Your task to perform on an android device: add a contact in the contacts app Image 0: 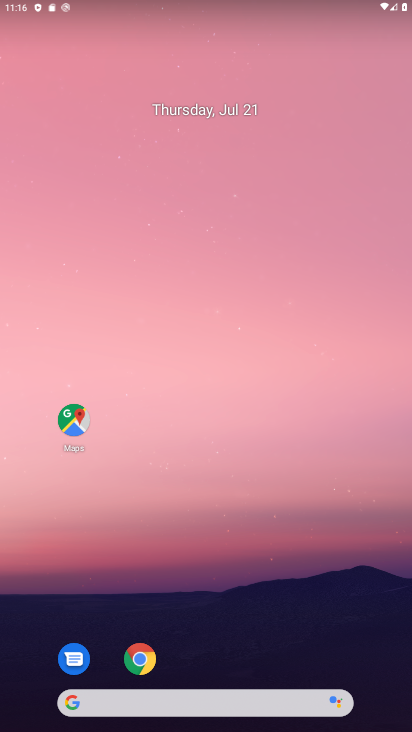
Step 0: drag from (260, 647) to (225, 246)
Your task to perform on an android device: add a contact in the contacts app Image 1: 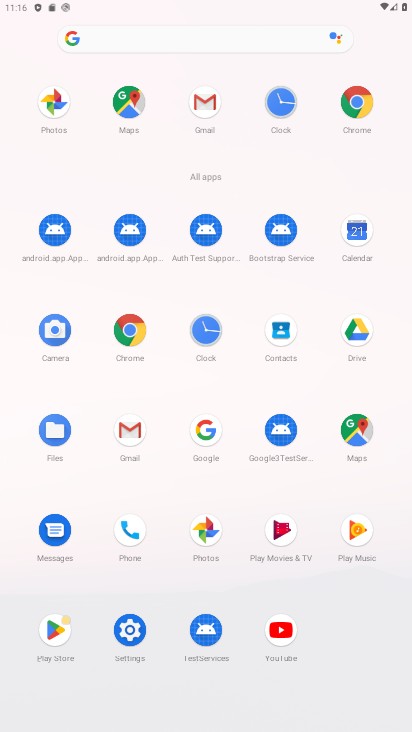
Step 1: click (273, 338)
Your task to perform on an android device: add a contact in the contacts app Image 2: 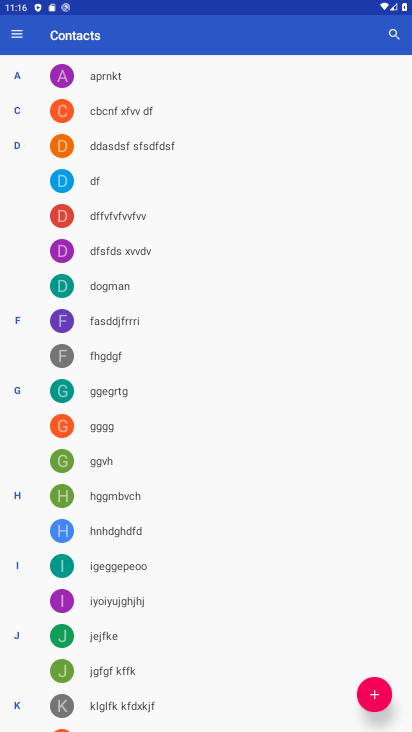
Step 2: click (384, 682)
Your task to perform on an android device: add a contact in the contacts app Image 3: 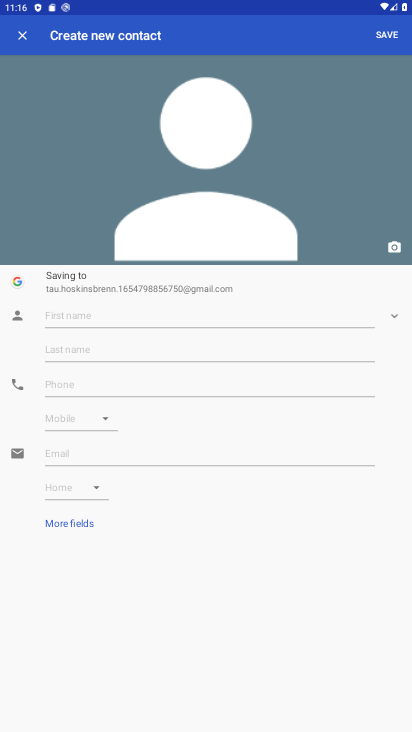
Step 3: click (159, 310)
Your task to perform on an android device: add a contact in the contacts app Image 4: 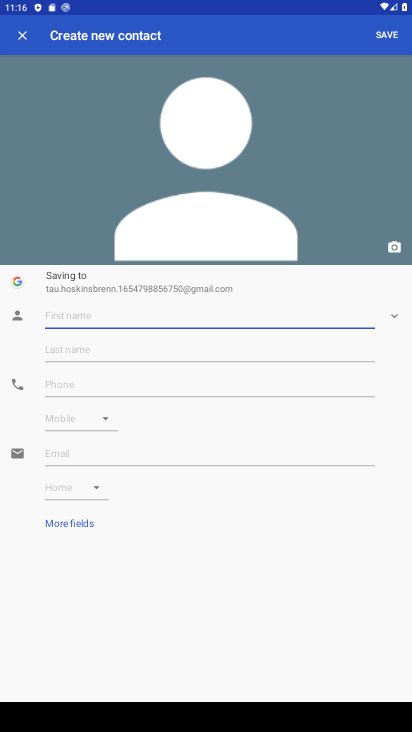
Step 4: type "poij"
Your task to perform on an android device: add a contact in the contacts app Image 5: 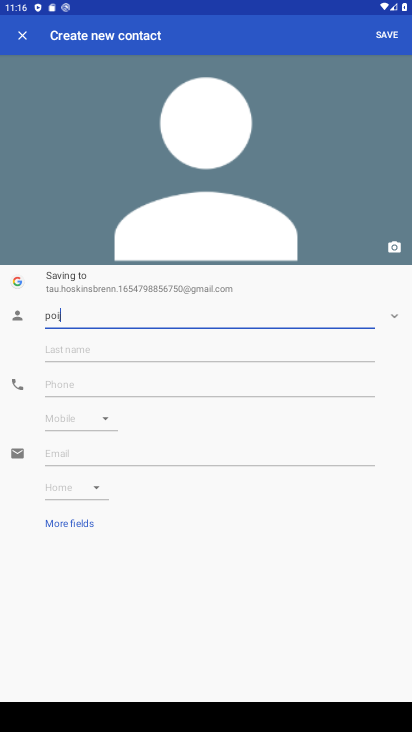
Step 5: click (139, 377)
Your task to perform on an android device: add a contact in the contacts app Image 6: 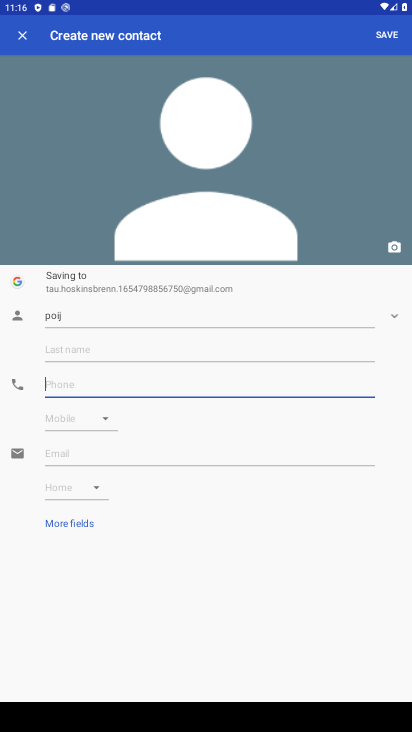
Step 6: type "3456789"
Your task to perform on an android device: add a contact in the contacts app Image 7: 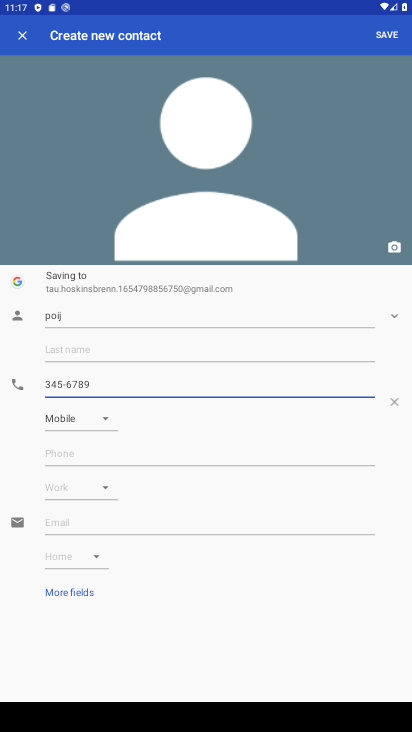
Step 7: click (384, 42)
Your task to perform on an android device: add a contact in the contacts app Image 8: 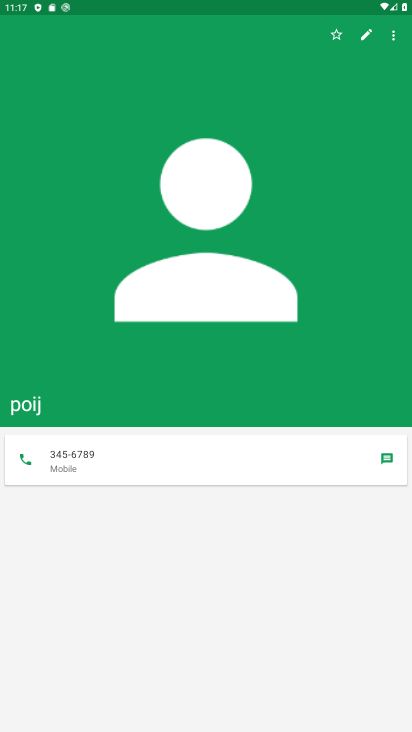
Step 8: task complete